Your task to perform on an android device: delete location history Image 0: 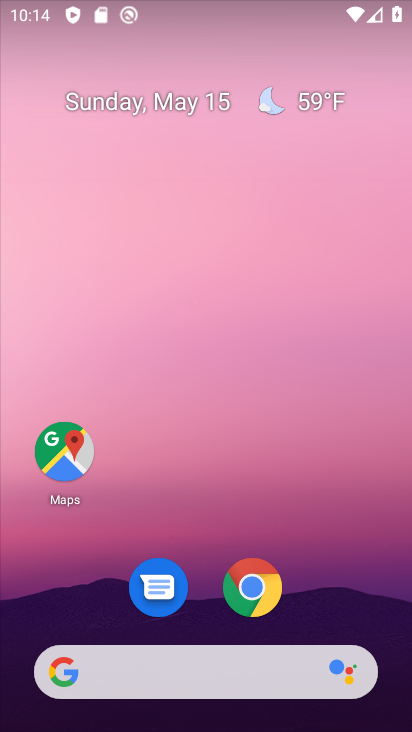
Step 0: drag from (73, 640) to (282, 127)
Your task to perform on an android device: delete location history Image 1: 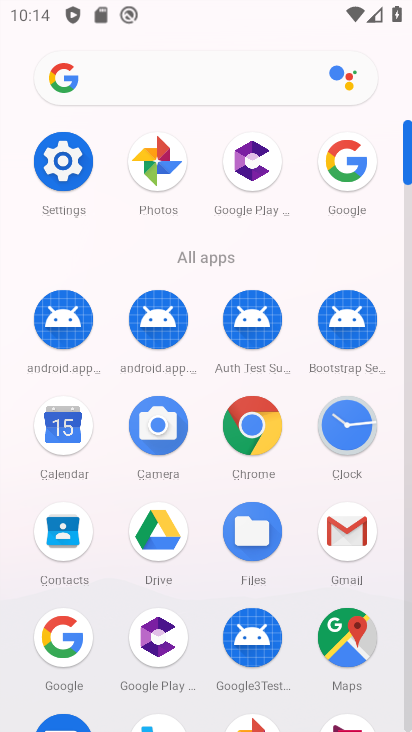
Step 1: drag from (208, 608) to (270, 406)
Your task to perform on an android device: delete location history Image 2: 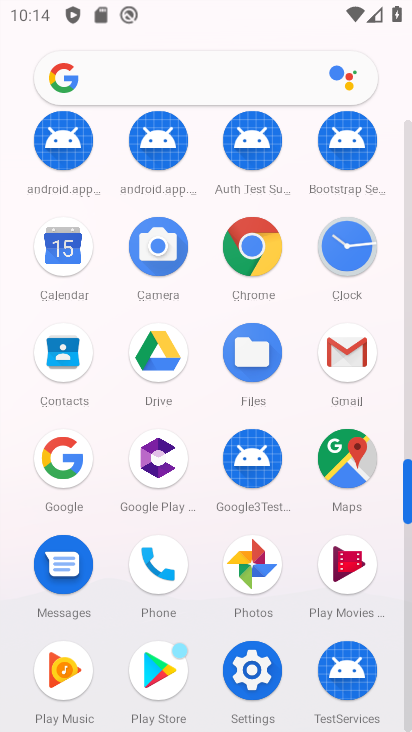
Step 2: drag from (175, 635) to (217, 414)
Your task to perform on an android device: delete location history Image 3: 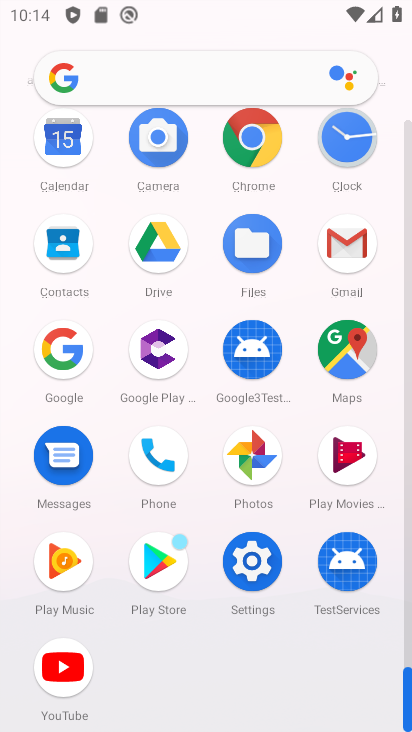
Step 3: click (255, 564)
Your task to perform on an android device: delete location history Image 4: 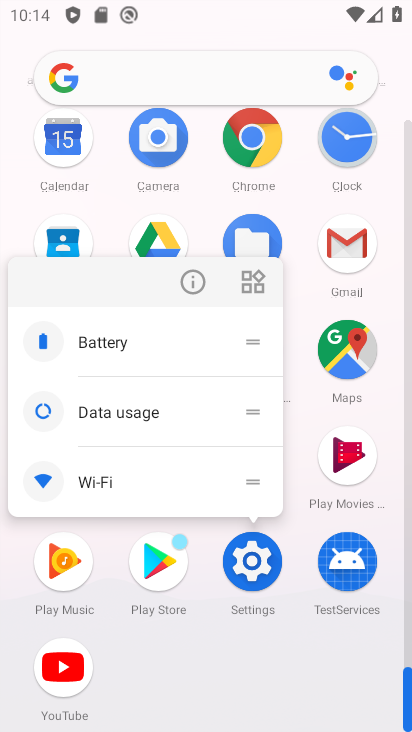
Step 4: click (256, 566)
Your task to perform on an android device: delete location history Image 5: 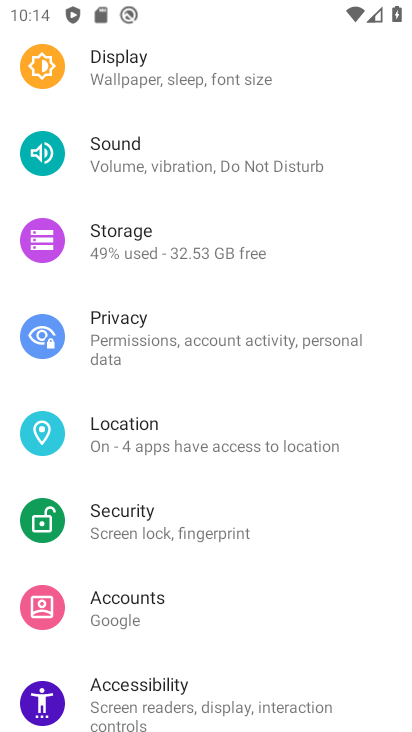
Step 5: drag from (192, 596) to (325, 178)
Your task to perform on an android device: delete location history Image 6: 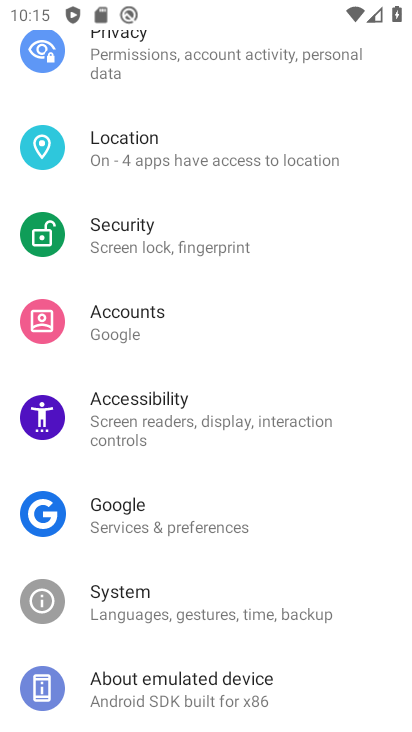
Step 6: click (201, 138)
Your task to perform on an android device: delete location history Image 7: 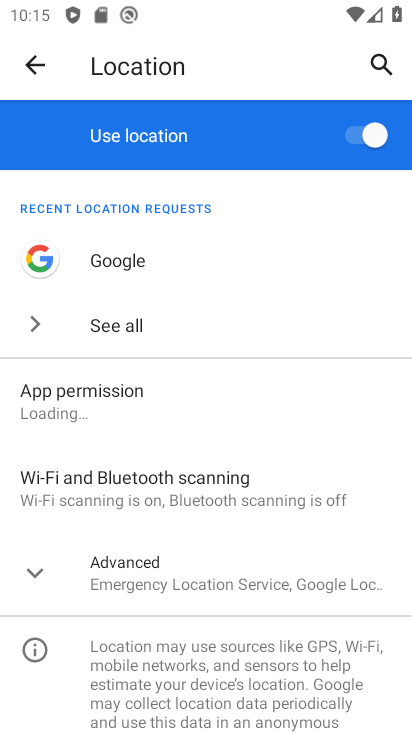
Step 7: click (169, 577)
Your task to perform on an android device: delete location history Image 8: 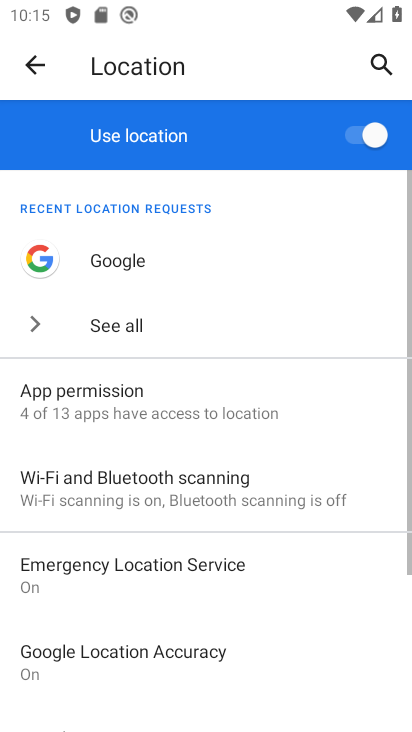
Step 8: drag from (184, 626) to (285, 269)
Your task to perform on an android device: delete location history Image 9: 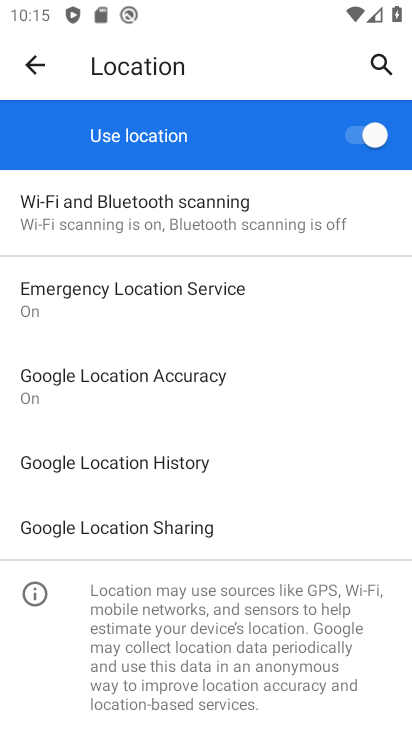
Step 9: click (161, 467)
Your task to perform on an android device: delete location history Image 10: 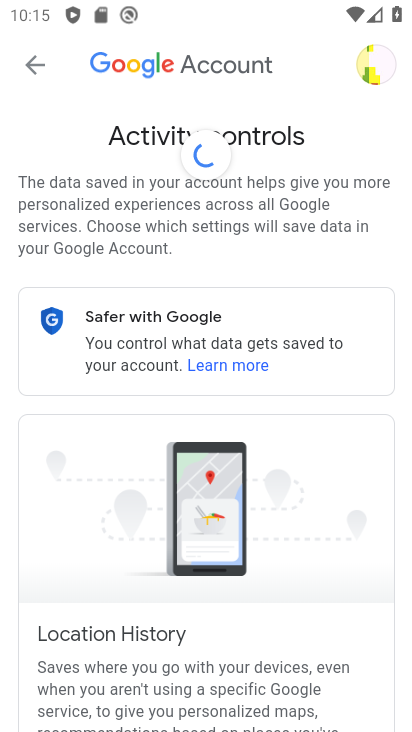
Step 10: drag from (201, 607) to (282, 346)
Your task to perform on an android device: delete location history Image 11: 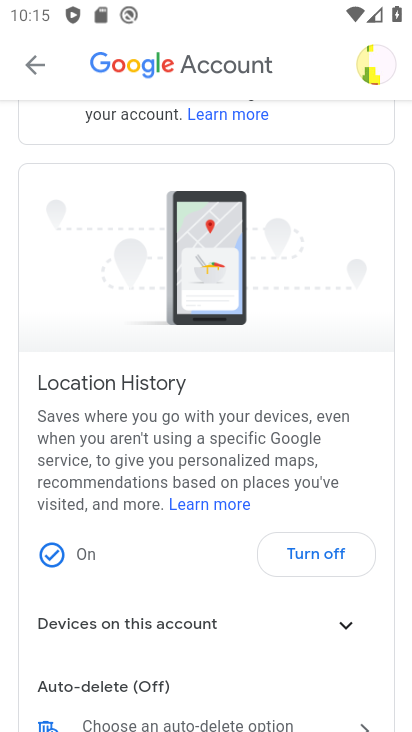
Step 11: drag from (196, 636) to (245, 456)
Your task to perform on an android device: delete location history Image 12: 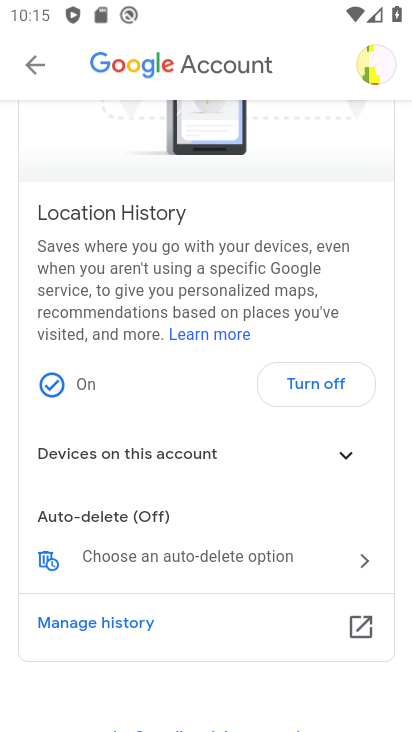
Step 12: click (123, 632)
Your task to perform on an android device: delete location history Image 13: 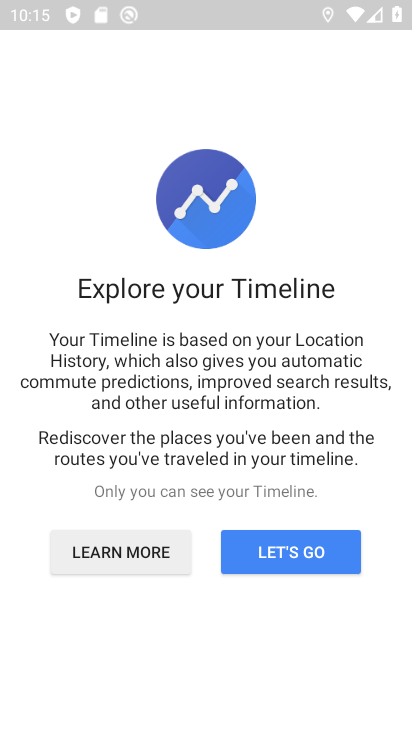
Step 13: click (317, 546)
Your task to perform on an android device: delete location history Image 14: 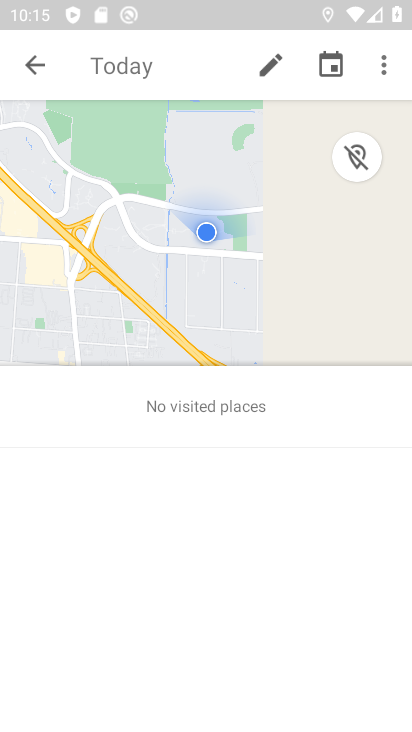
Step 14: click (388, 63)
Your task to perform on an android device: delete location history Image 15: 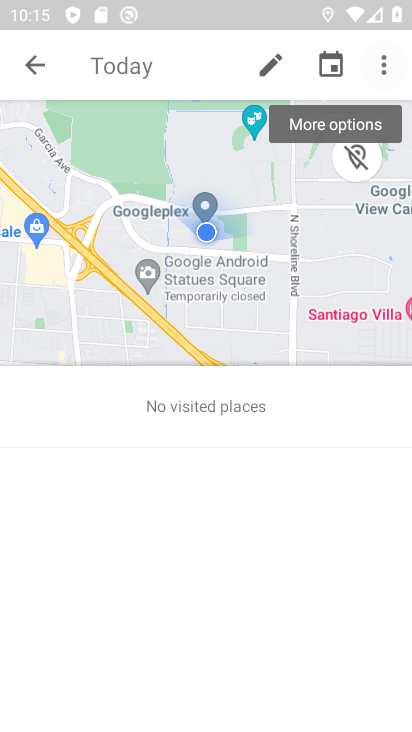
Step 15: click (389, 64)
Your task to perform on an android device: delete location history Image 16: 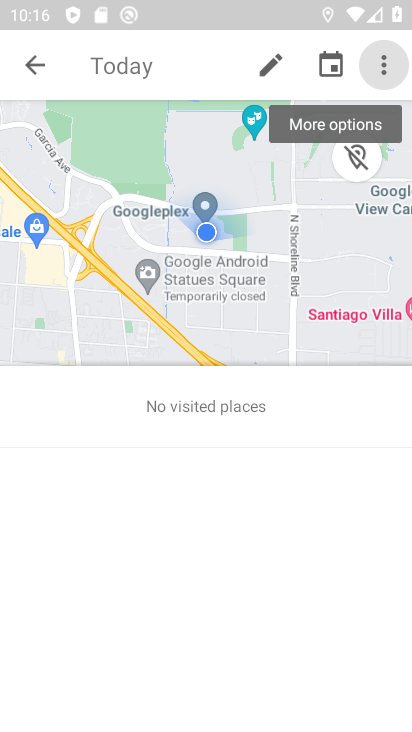
Step 16: click (386, 65)
Your task to perform on an android device: delete location history Image 17: 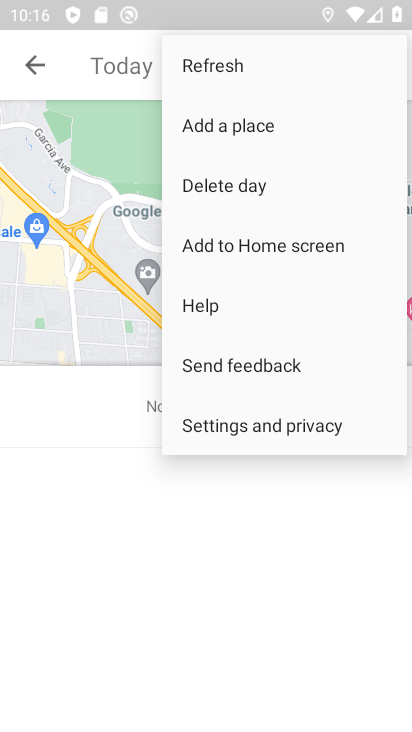
Step 17: click (312, 200)
Your task to perform on an android device: delete location history Image 18: 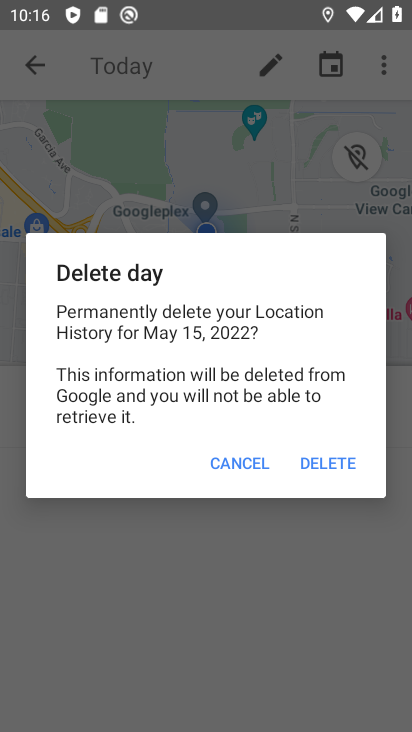
Step 18: click (335, 467)
Your task to perform on an android device: delete location history Image 19: 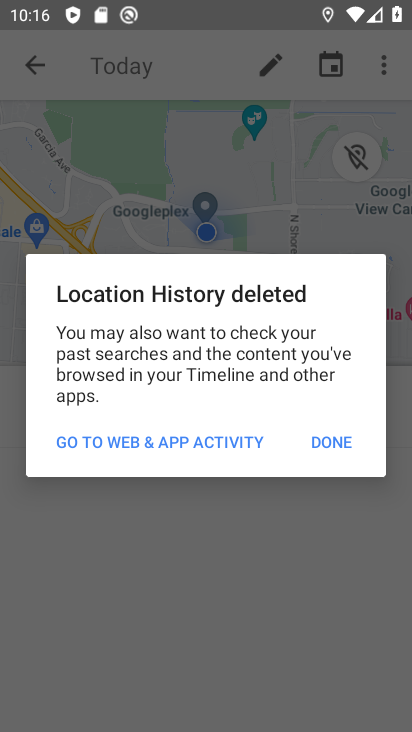
Step 19: click (346, 448)
Your task to perform on an android device: delete location history Image 20: 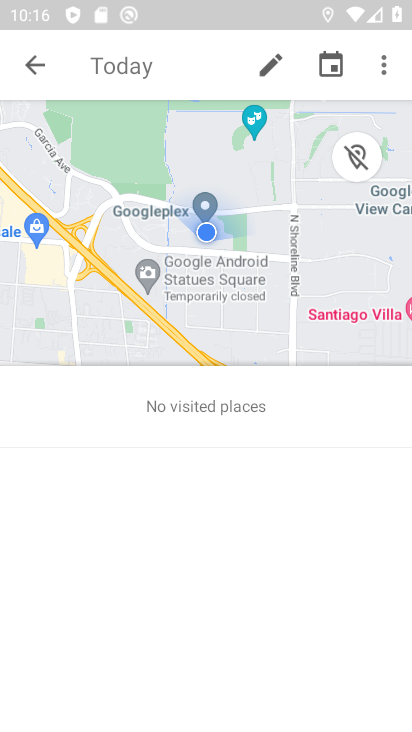
Step 20: task complete